Your task to perform on an android device: Open notification settings Image 0: 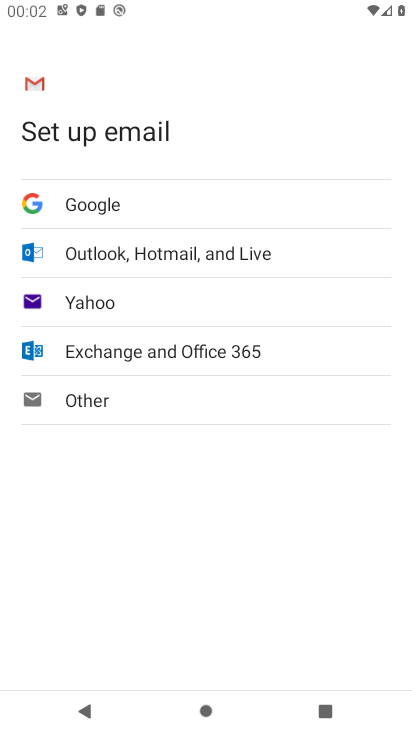
Step 0: press back button
Your task to perform on an android device: Open notification settings Image 1: 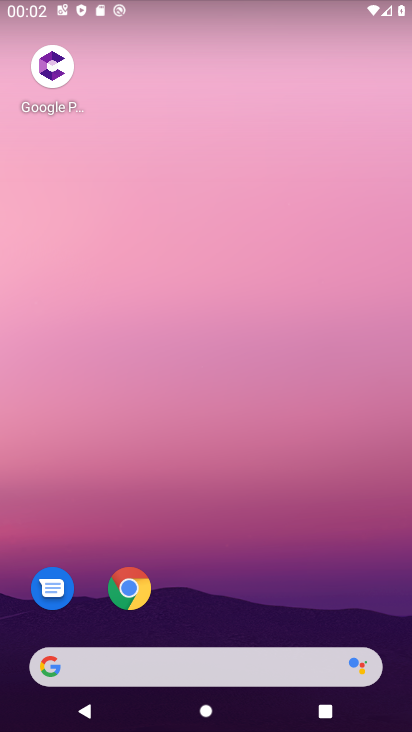
Step 1: drag from (326, 9) to (263, 606)
Your task to perform on an android device: Open notification settings Image 2: 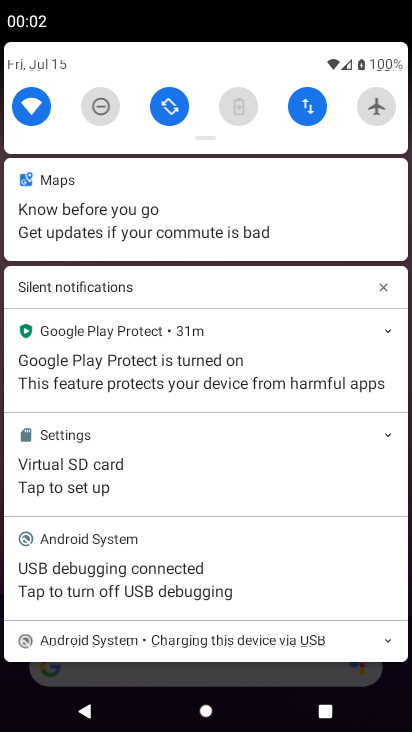
Step 2: drag from (240, 653) to (326, 46)
Your task to perform on an android device: Open notification settings Image 3: 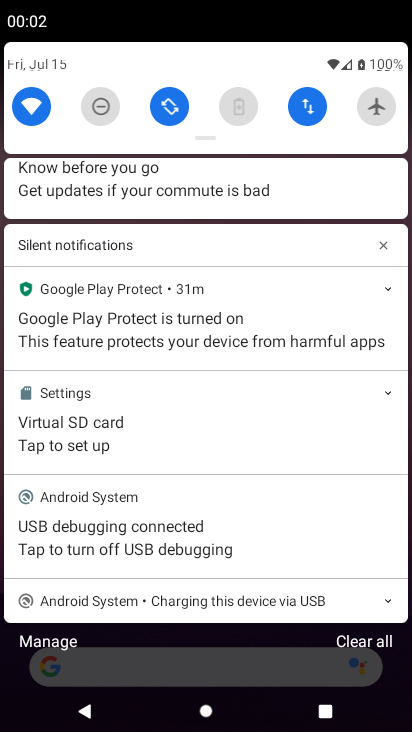
Step 3: drag from (203, 647) to (288, 80)
Your task to perform on an android device: Open notification settings Image 4: 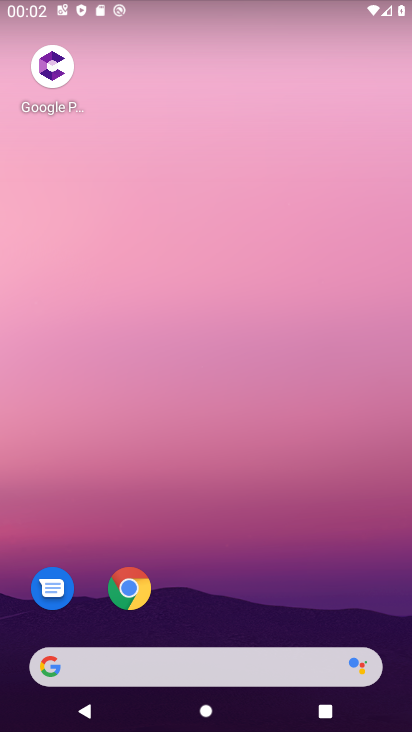
Step 4: drag from (240, 540) to (261, 99)
Your task to perform on an android device: Open notification settings Image 5: 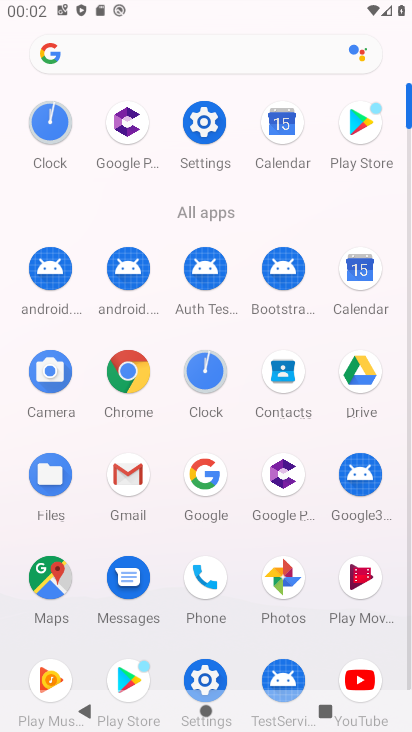
Step 5: click (217, 125)
Your task to perform on an android device: Open notification settings Image 6: 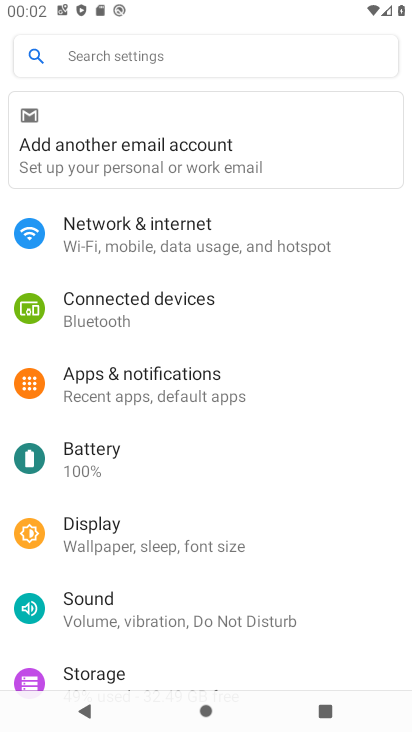
Step 6: click (147, 396)
Your task to perform on an android device: Open notification settings Image 7: 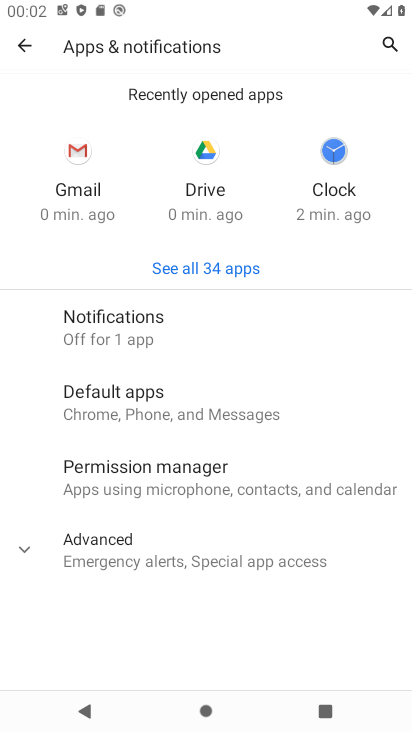
Step 7: task complete